Your task to perform on an android device: What's the weather going to be tomorrow? Image 0: 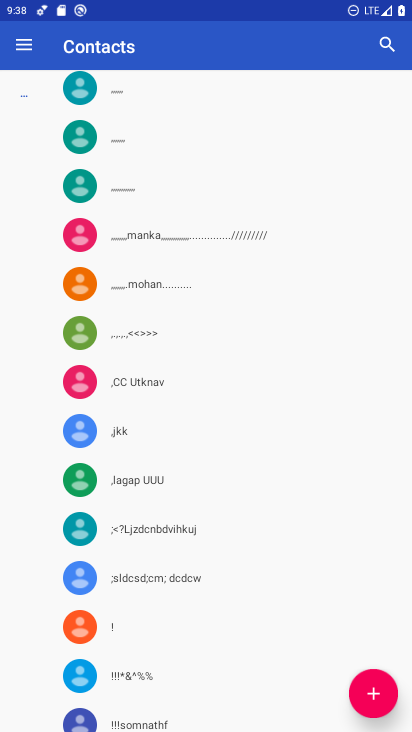
Step 0: press home button
Your task to perform on an android device: What's the weather going to be tomorrow? Image 1: 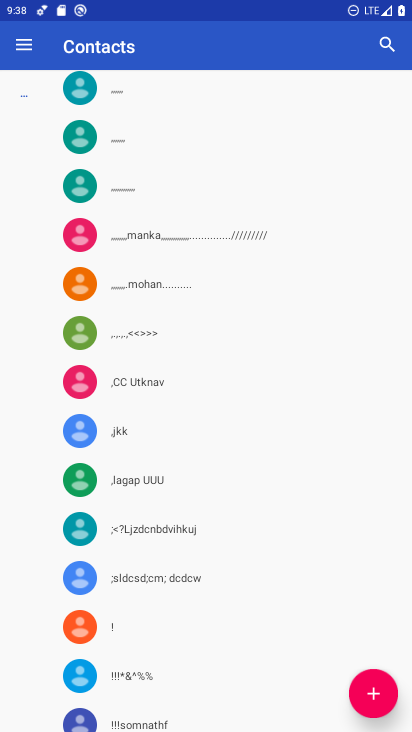
Step 1: press home button
Your task to perform on an android device: What's the weather going to be tomorrow? Image 2: 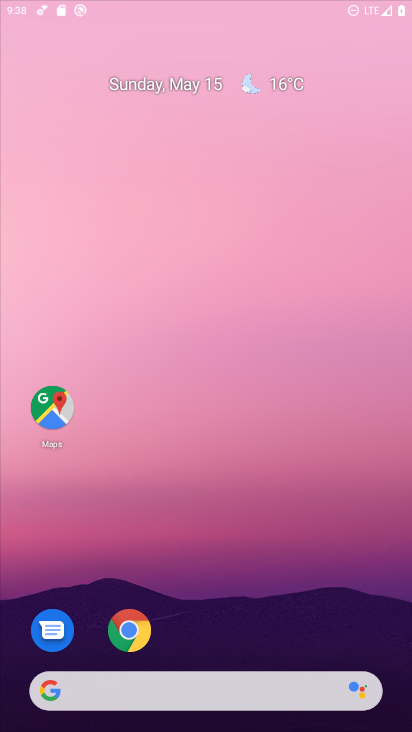
Step 2: drag from (177, 660) to (324, 111)
Your task to perform on an android device: What's the weather going to be tomorrow? Image 3: 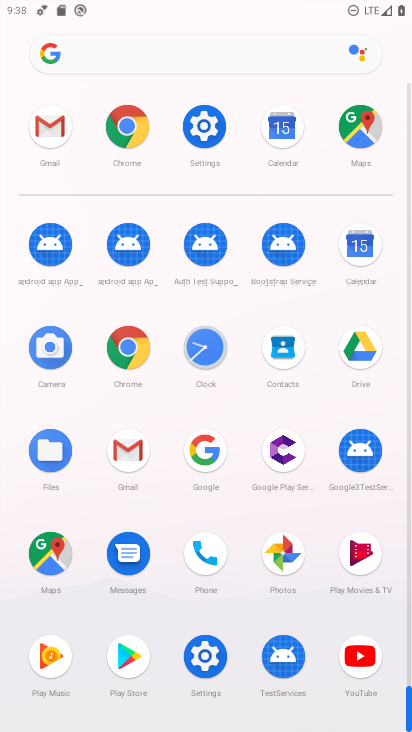
Step 3: click (150, 61)
Your task to perform on an android device: What's the weather going to be tomorrow? Image 4: 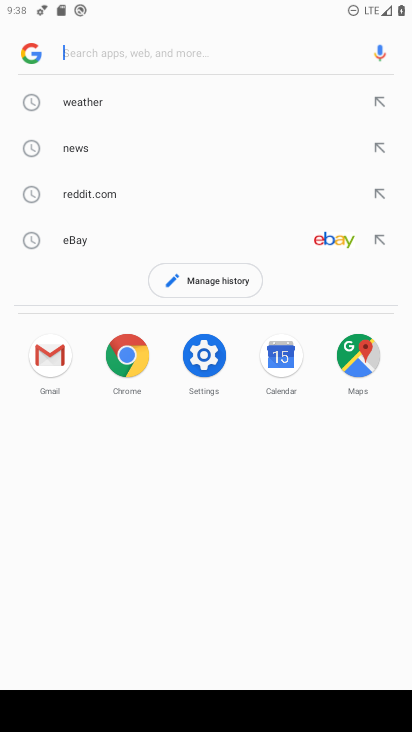
Step 4: type "waether going to be tomorrow"
Your task to perform on an android device: What's the weather going to be tomorrow? Image 5: 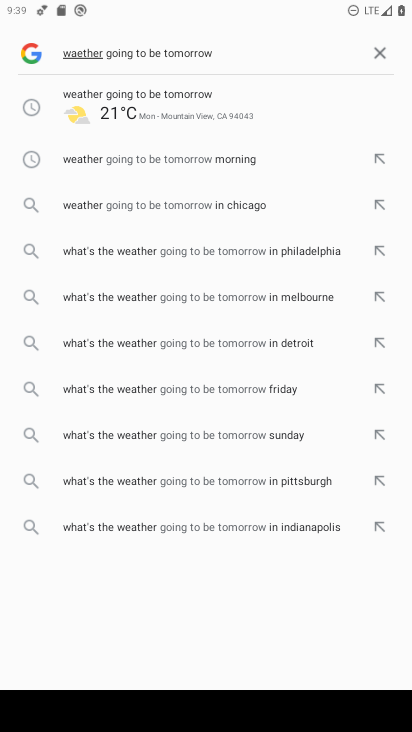
Step 5: click (148, 105)
Your task to perform on an android device: What's the weather going to be tomorrow? Image 6: 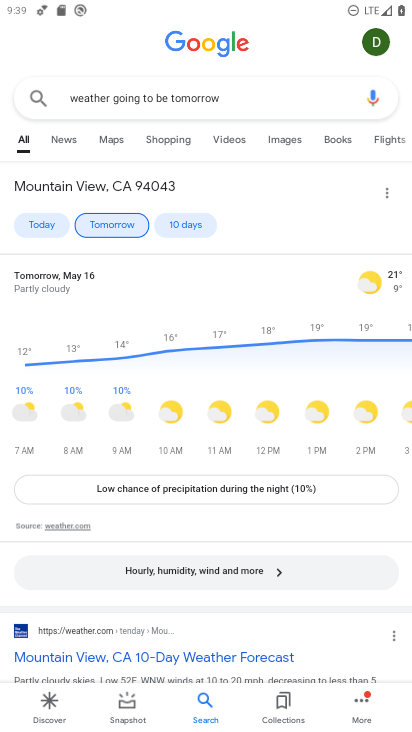
Step 6: task complete